Your task to perform on an android device: open sync settings in chrome Image 0: 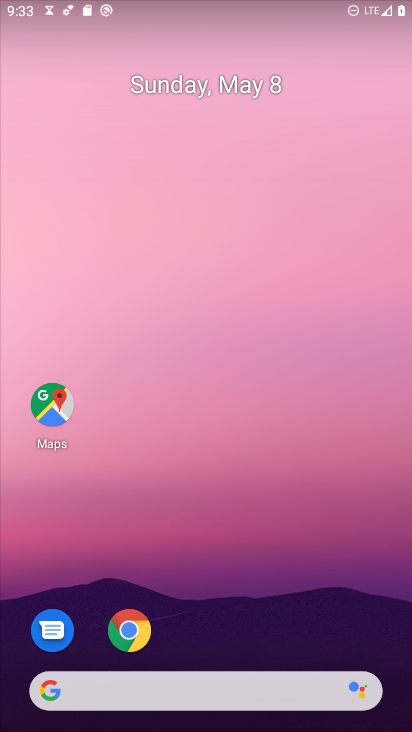
Step 0: drag from (221, 680) to (375, 199)
Your task to perform on an android device: open sync settings in chrome Image 1: 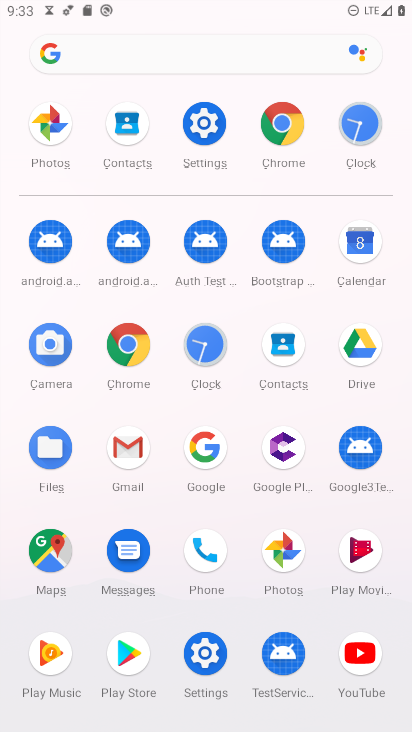
Step 1: click (279, 125)
Your task to perform on an android device: open sync settings in chrome Image 2: 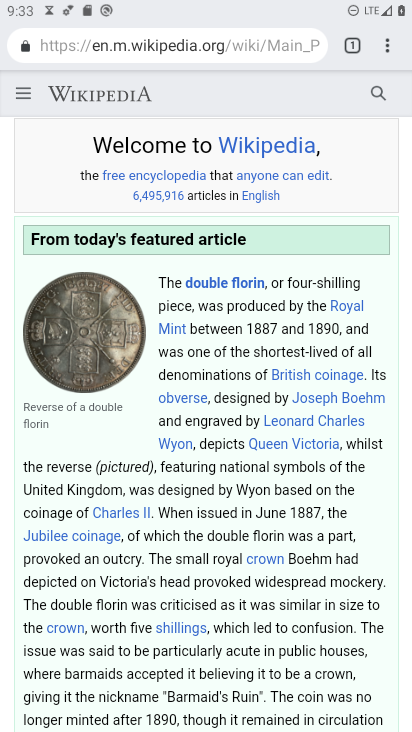
Step 2: drag from (388, 48) to (240, 547)
Your task to perform on an android device: open sync settings in chrome Image 3: 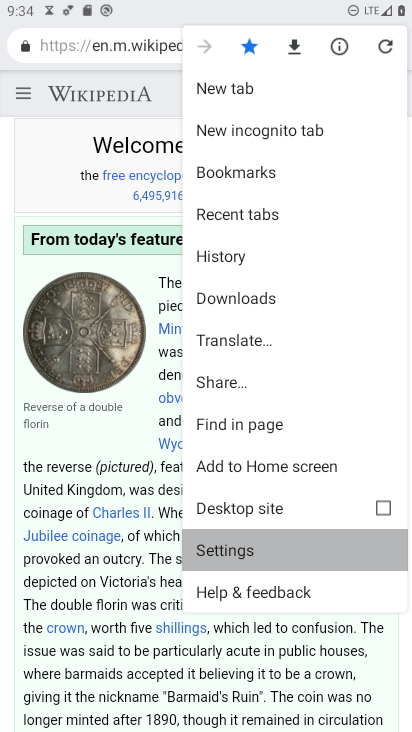
Step 3: click (240, 547)
Your task to perform on an android device: open sync settings in chrome Image 4: 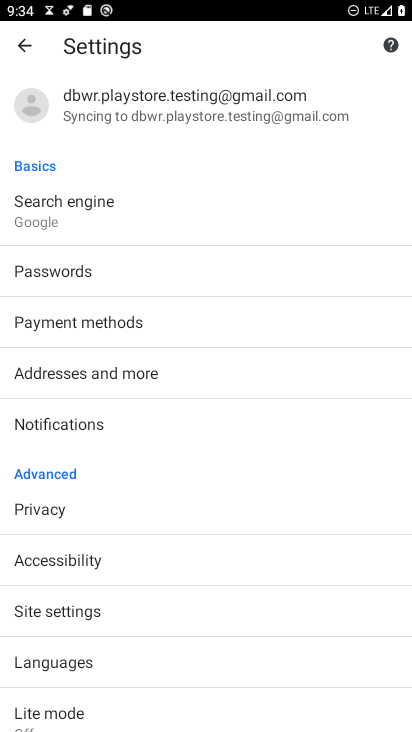
Step 4: click (122, 120)
Your task to perform on an android device: open sync settings in chrome Image 5: 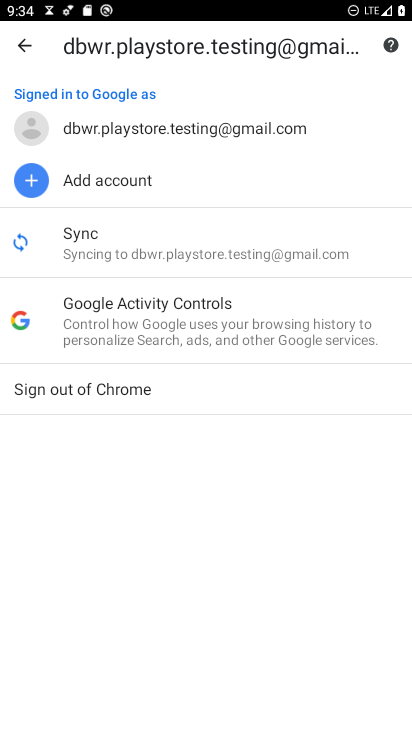
Step 5: click (215, 237)
Your task to perform on an android device: open sync settings in chrome Image 6: 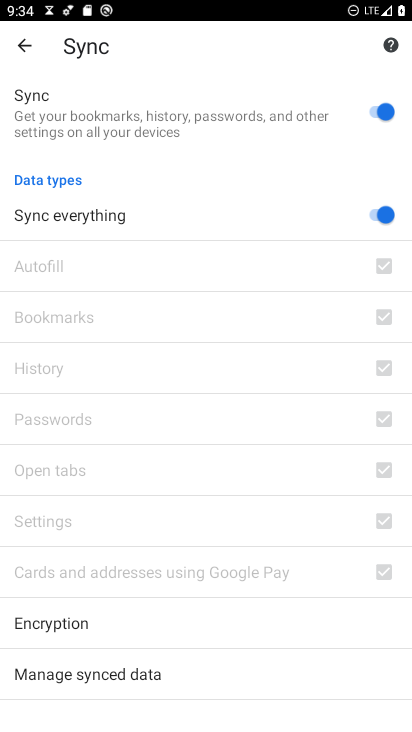
Step 6: task complete